Your task to perform on an android device: What's on my calendar today? Image 0: 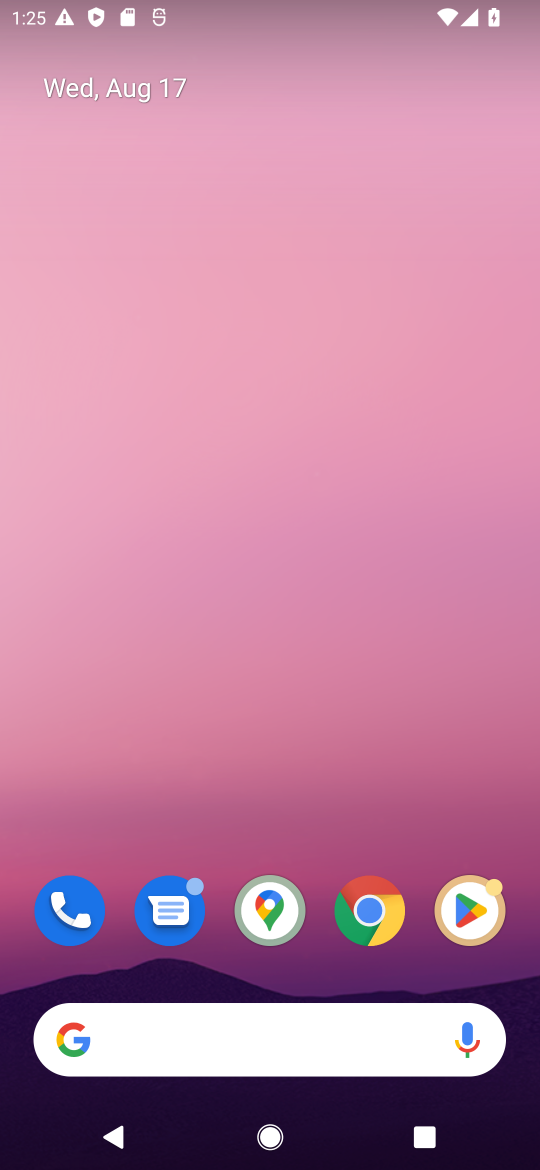
Step 0: drag from (228, 951) to (300, 25)
Your task to perform on an android device: What's on my calendar today? Image 1: 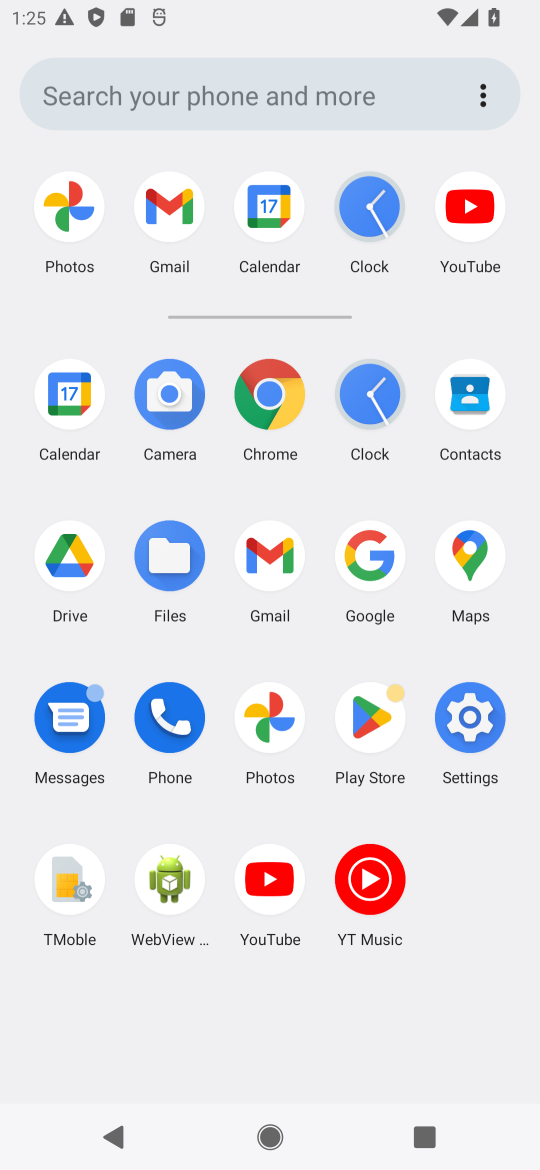
Step 1: click (249, 218)
Your task to perform on an android device: What's on my calendar today? Image 2: 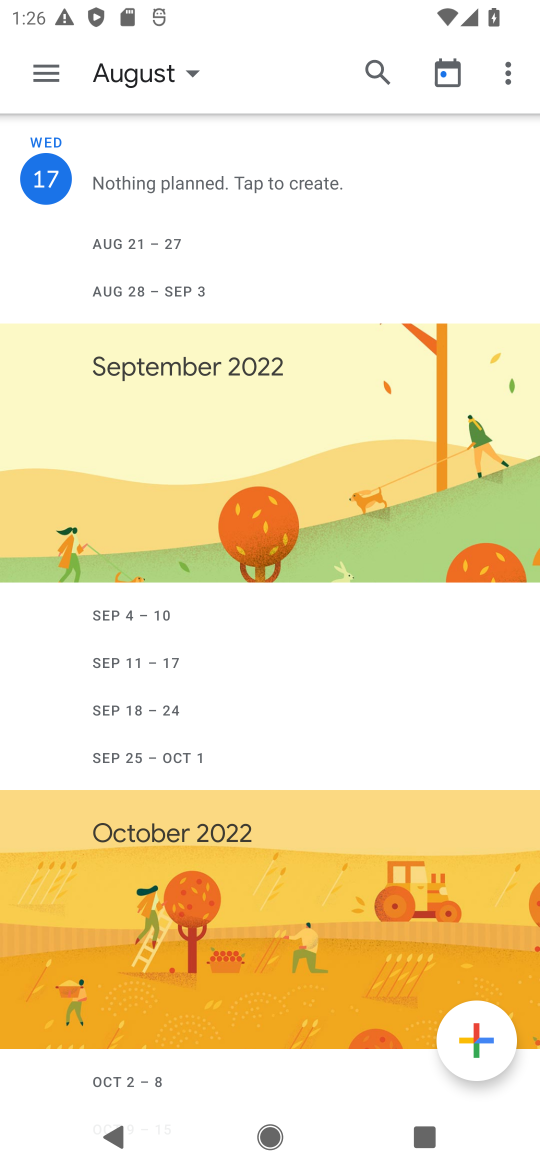
Step 2: task complete